Your task to perform on an android device: toggle notifications settings in the gmail app Image 0: 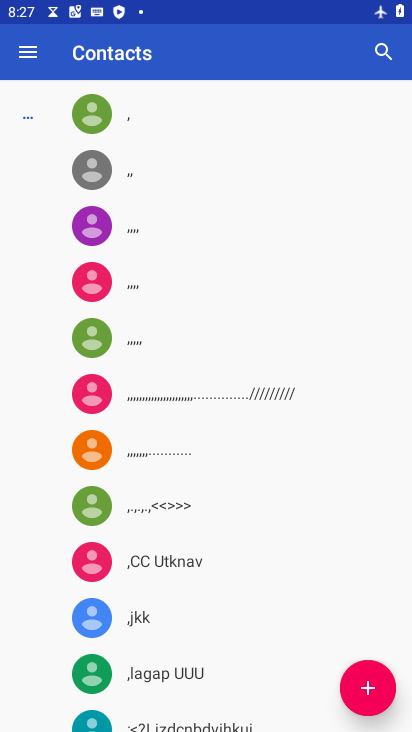
Step 0: press home button
Your task to perform on an android device: toggle notifications settings in the gmail app Image 1: 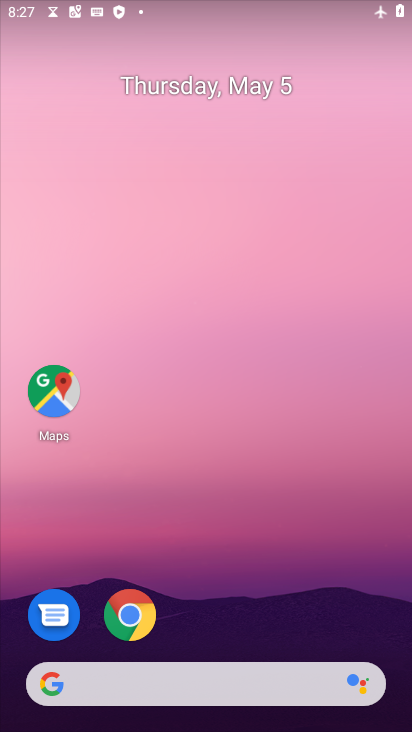
Step 1: drag from (201, 652) to (271, 97)
Your task to perform on an android device: toggle notifications settings in the gmail app Image 2: 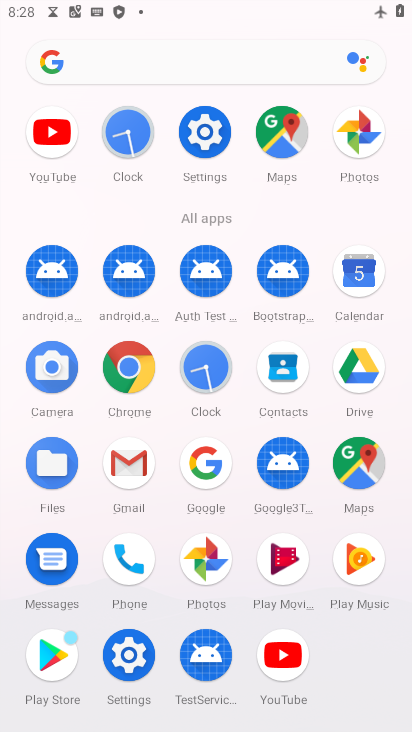
Step 2: click (123, 470)
Your task to perform on an android device: toggle notifications settings in the gmail app Image 3: 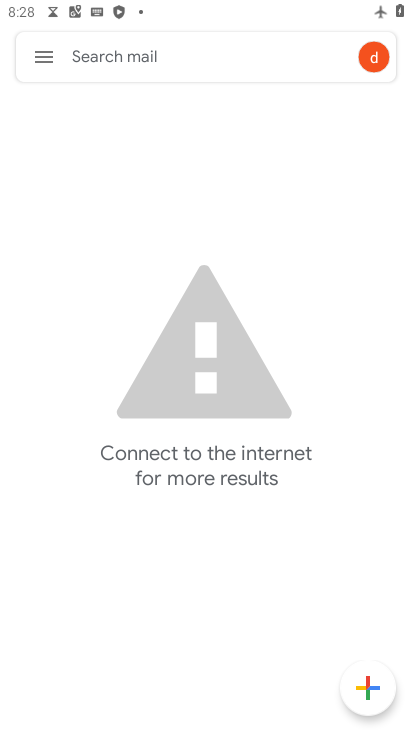
Step 3: click (43, 58)
Your task to perform on an android device: toggle notifications settings in the gmail app Image 4: 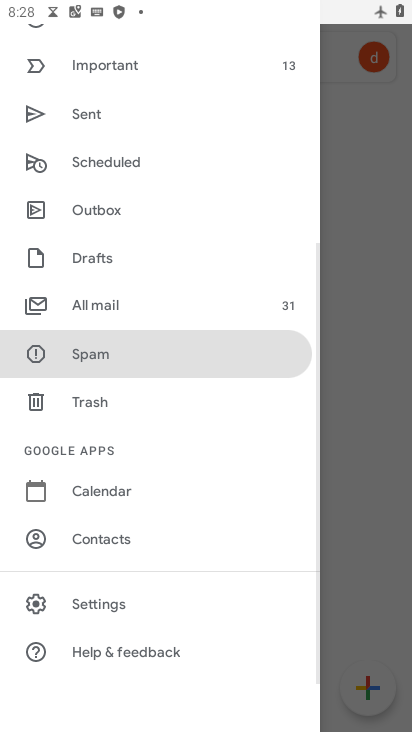
Step 4: click (113, 608)
Your task to perform on an android device: toggle notifications settings in the gmail app Image 5: 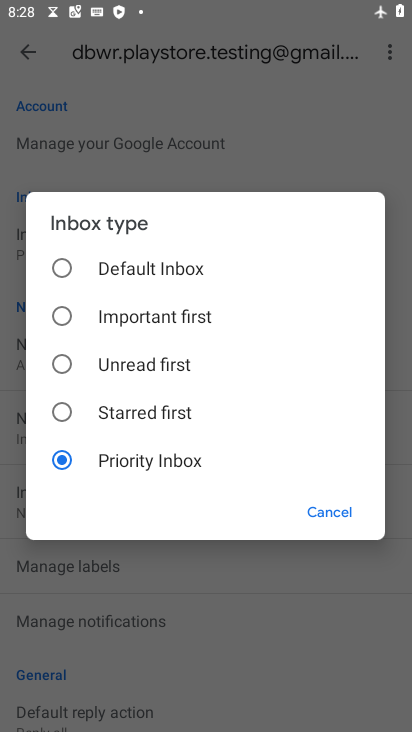
Step 5: click (343, 508)
Your task to perform on an android device: toggle notifications settings in the gmail app Image 6: 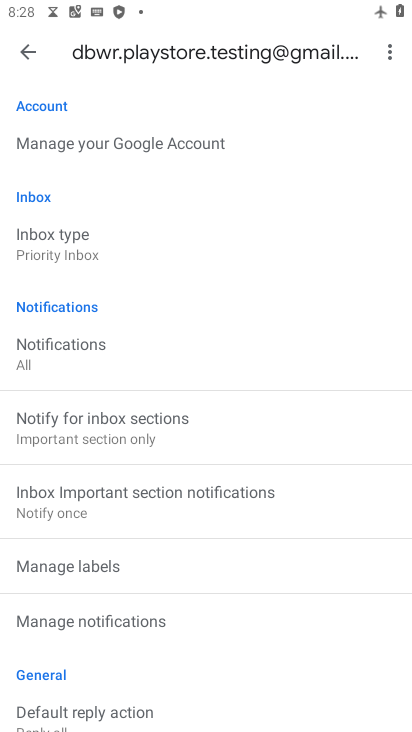
Step 6: click (33, 36)
Your task to perform on an android device: toggle notifications settings in the gmail app Image 7: 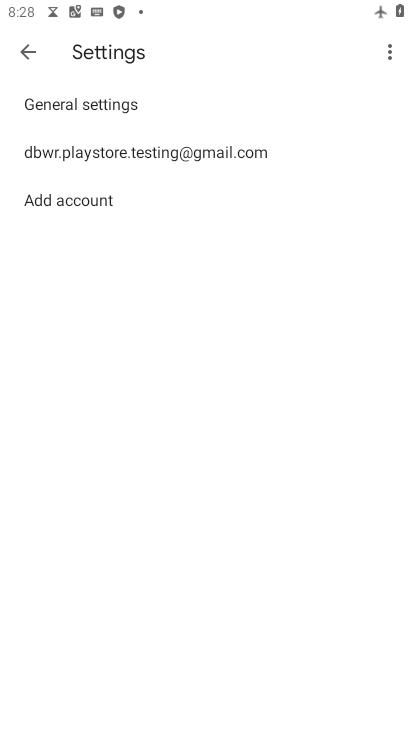
Step 7: click (71, 121)
Your task to perform on an android device: toggle notifications settings in the gmail app Image 8: 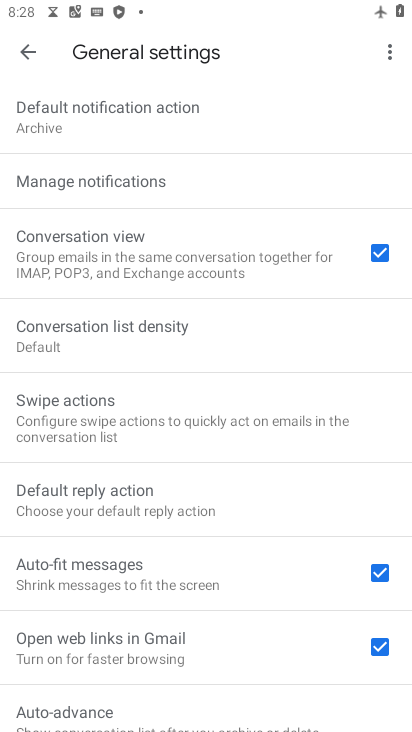
Step 8: click (94, 179)
Your task to perform on an android device: toggle notifications settings in the gmail app Image 9: 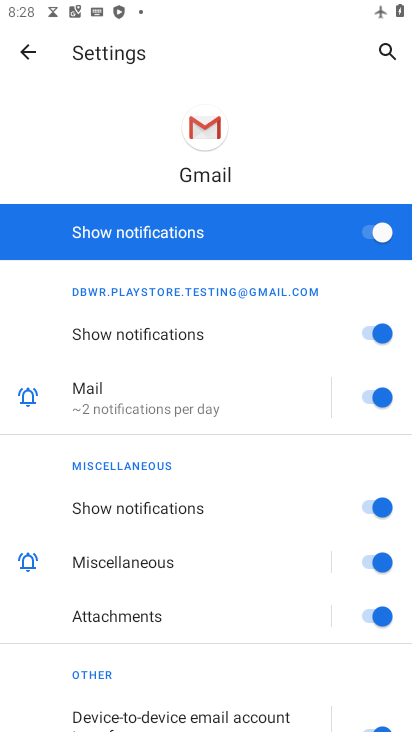
Step 9: click (371, 229)
Your task to perform on an android device: toggle notifications settings in the gmail app Image 10: 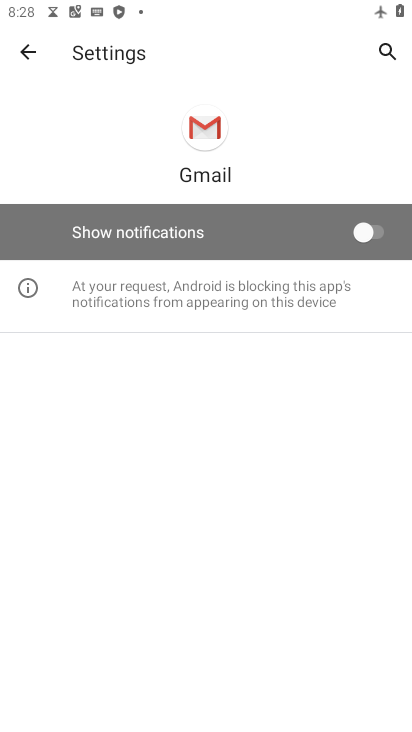
Step 10: task complete